Your task to perform on an android device: open app "Viber Messenger" (install if not already installed) Image 0: 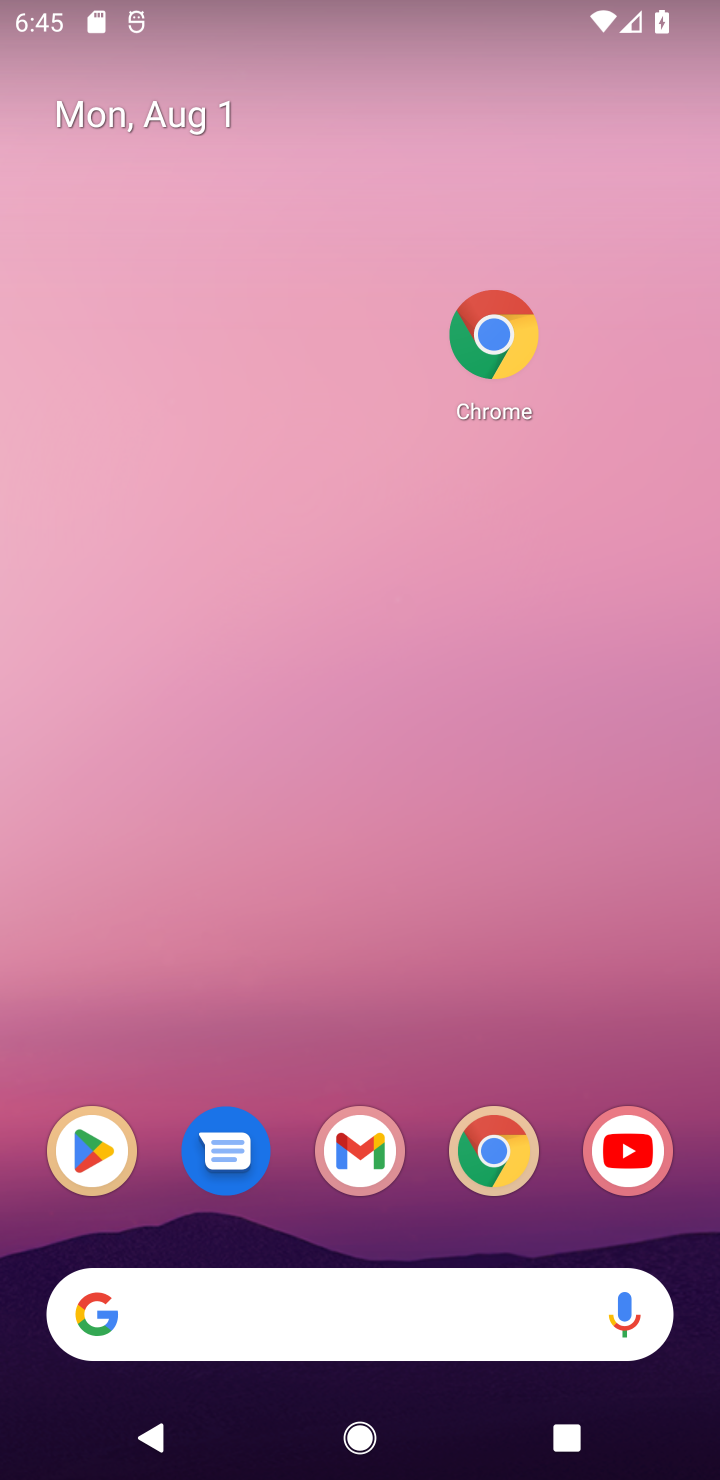
Step 0: click (97, 1131)
Your task to perform on an android device: open app "Viber Messenger" (install if not already installed) Image 1: 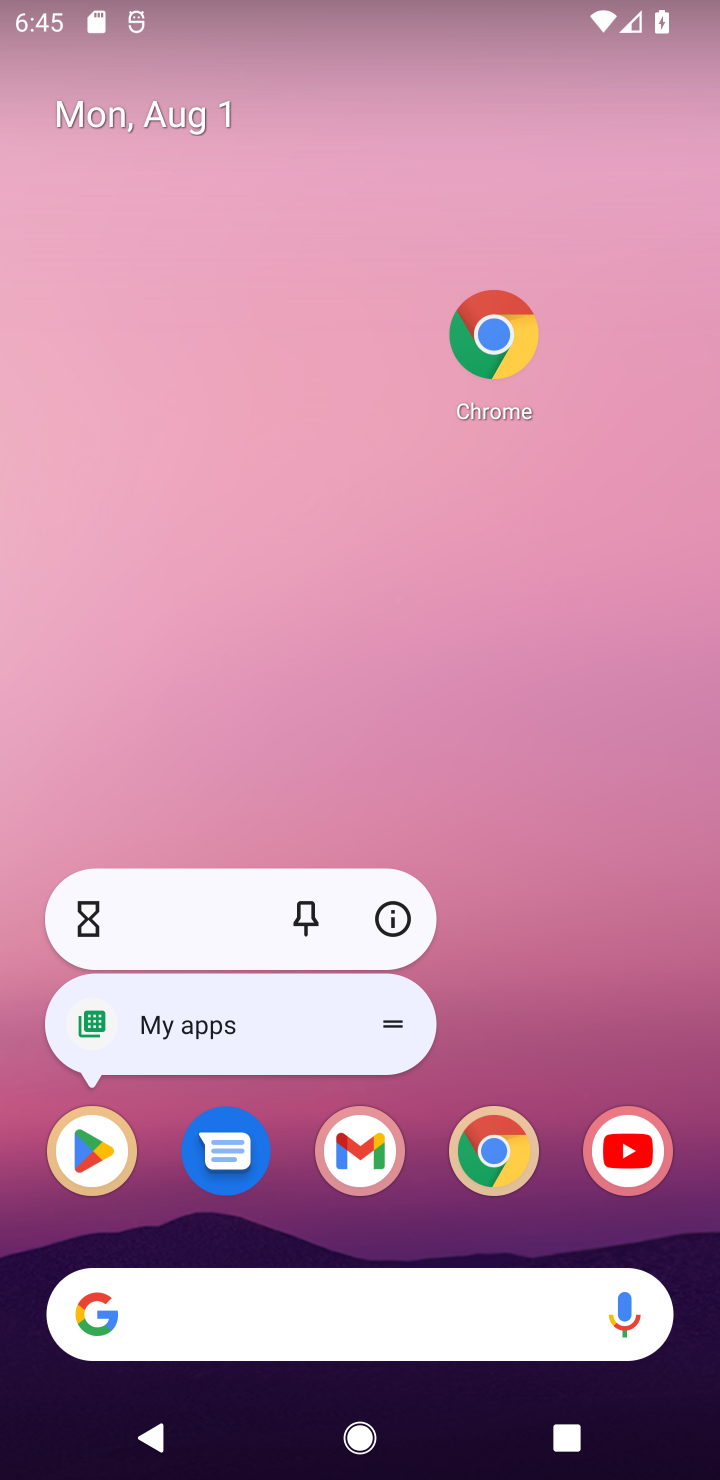
Step 1: click (89, 1171)
Your task to perform on an android device: open app "Viber Messenger" (install if not already installed) Image 2: 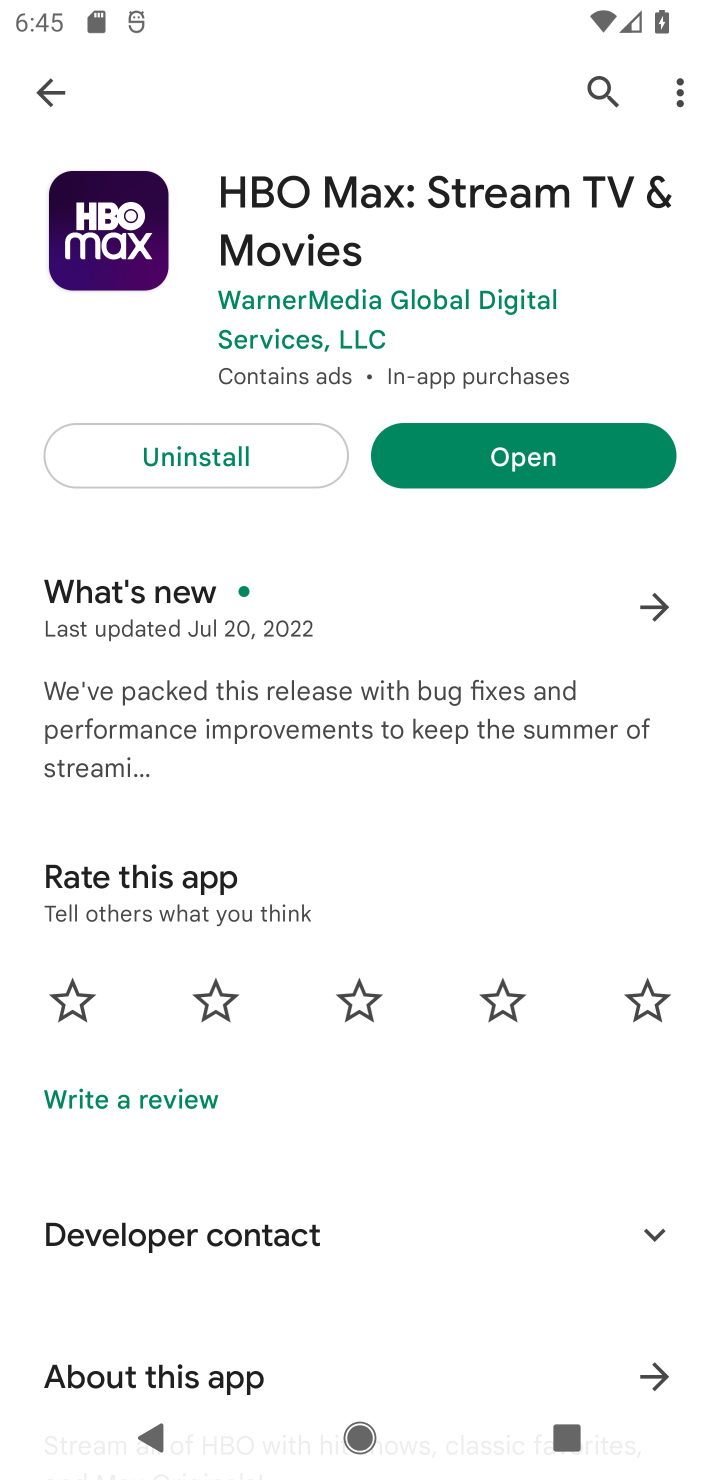
Step 2: click (587, 86)
Your task to perform on an android device: open app "Viber Messenger" (install if not already installed) Image 3: 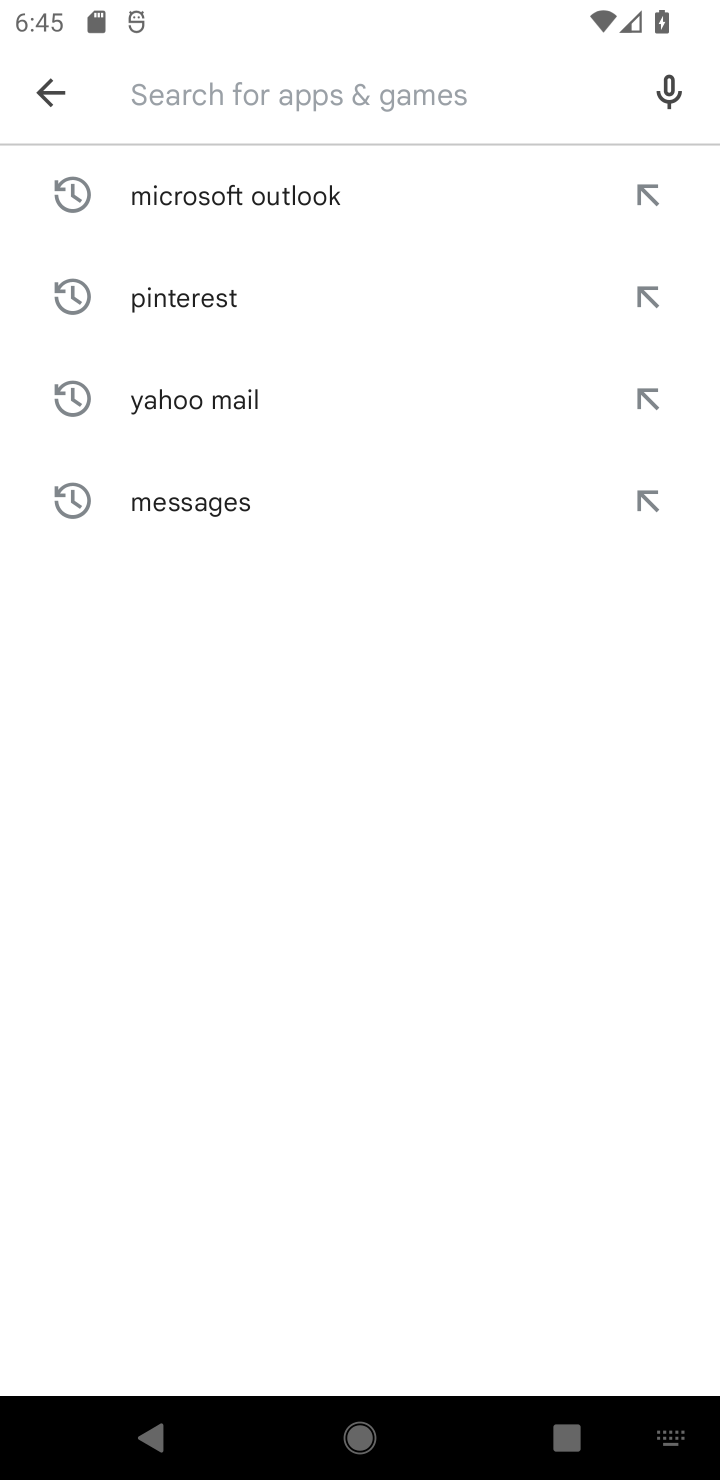
Step 3: click (442, 112)
Your task to perform on an android device: open app "Viber Messenger" (install if not already installed) Image 4: 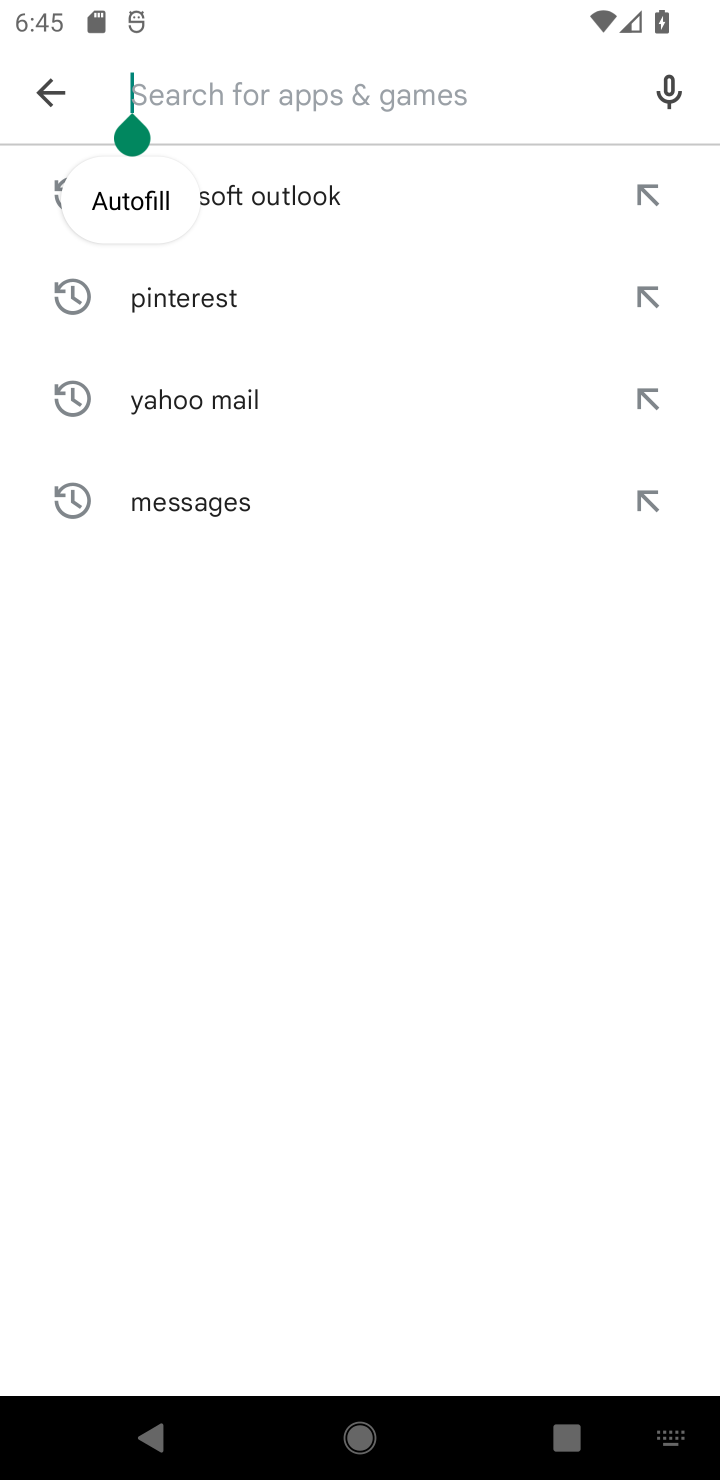
Step 4: type "Viber Messenger"
Your task to perform on an android device: open app "Viber Messenger" (install if not already installed) Image 5: 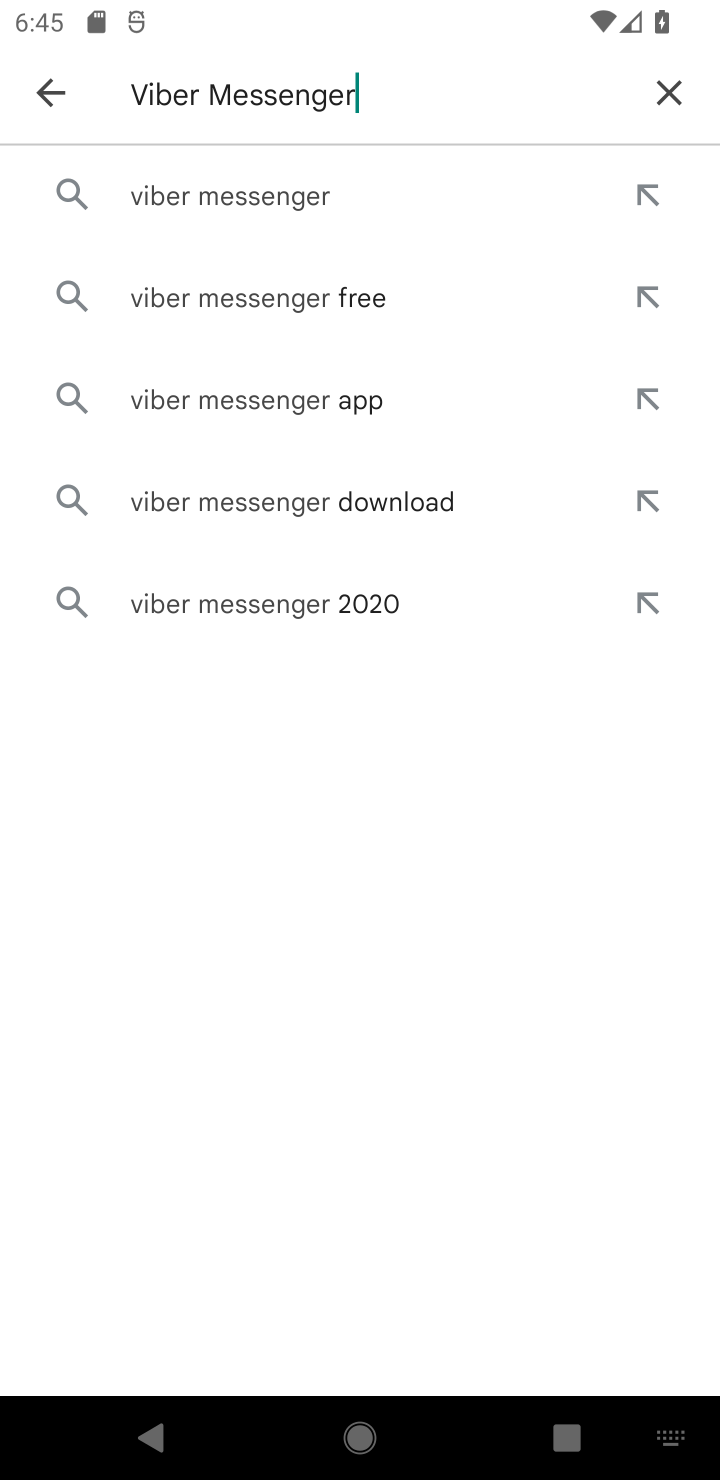
Step 5: click (251, 217)
Your task to perform on an android device: open app "Viber Messenger" (install if not already installed) Image 6: 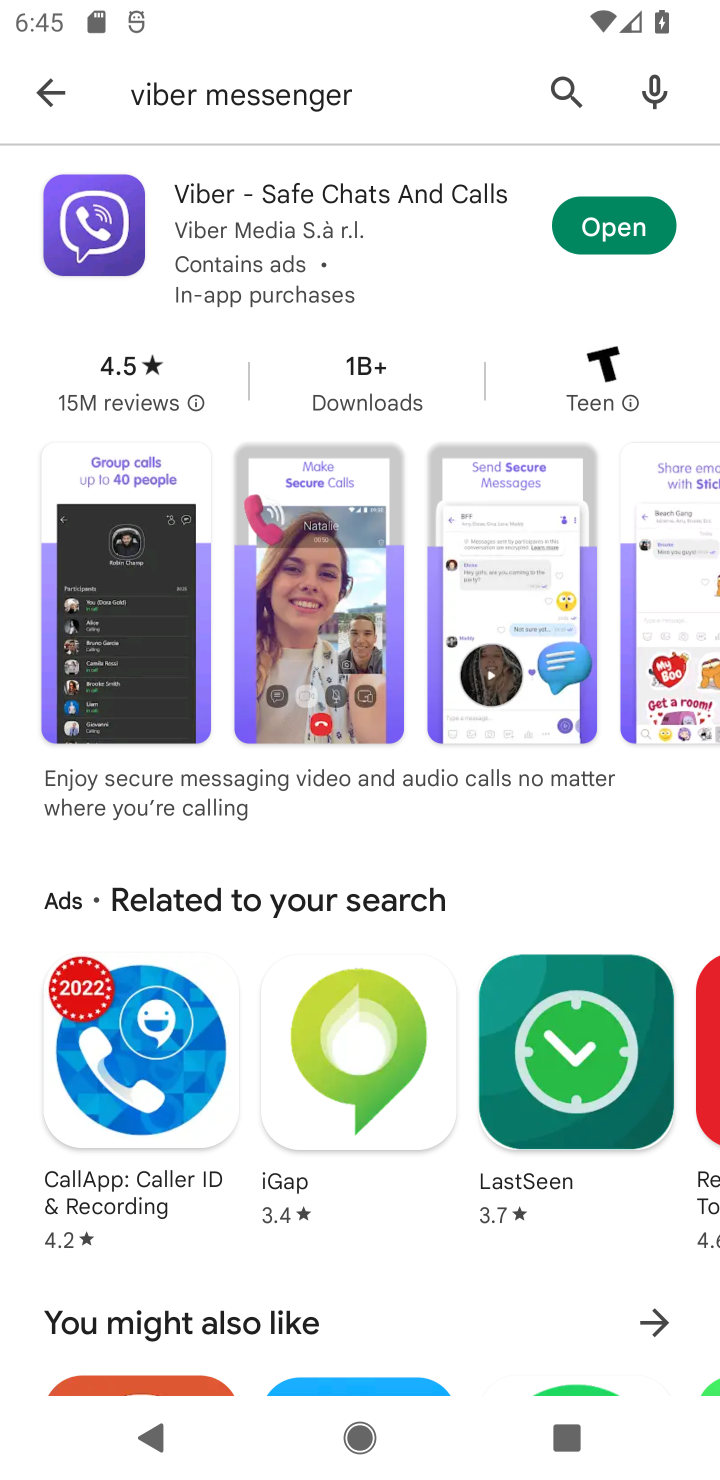
Step 6: click (594, 247)
Your task to perform on an android device: open app "Viber Messenger" (install if not already installed) Image 7: 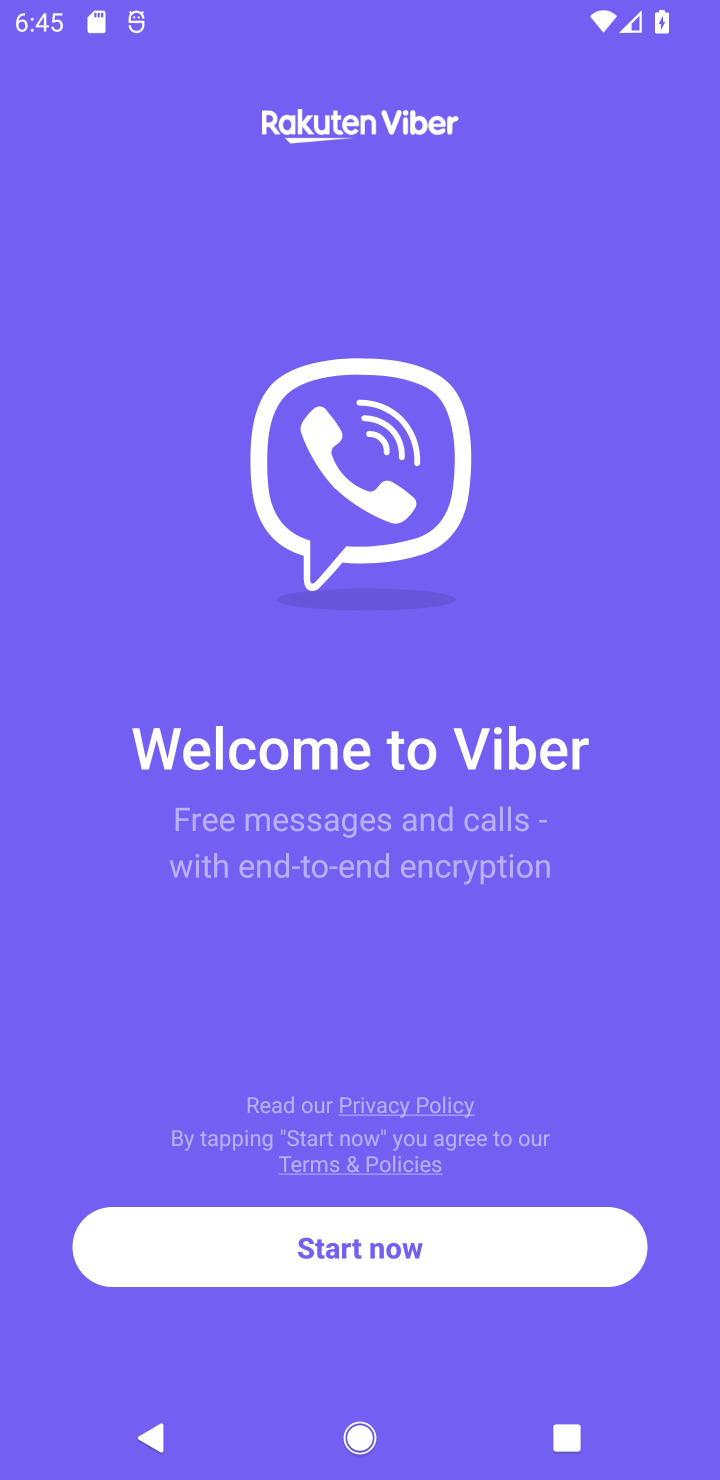
Step 7: task complete